Your task to perform on an android device: open sync settings in chrome Image 0: 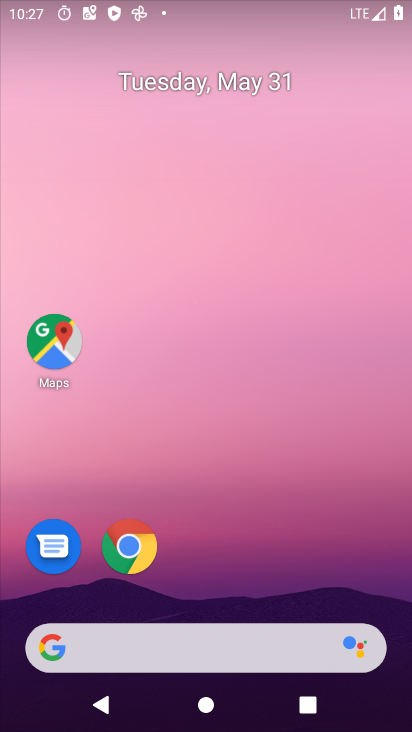
Step 0: drag from (287, 552) to (347, 105)
Your task to perform on an android device: open sync settings in chrome Image 1: 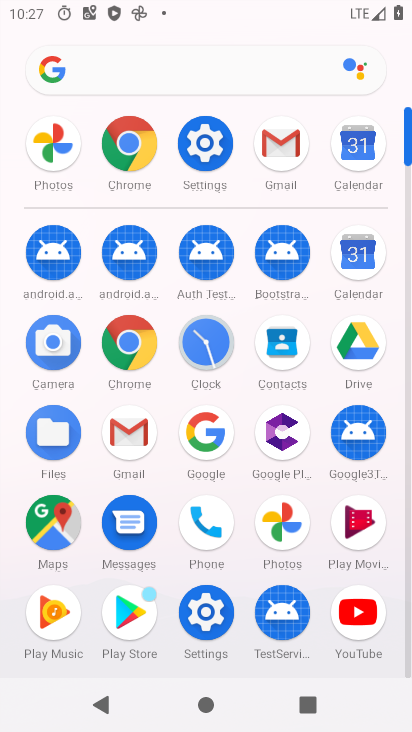
Step 1: click (128, 160)
Your task to perform on an android device: open sync settings in chrome Image 2: 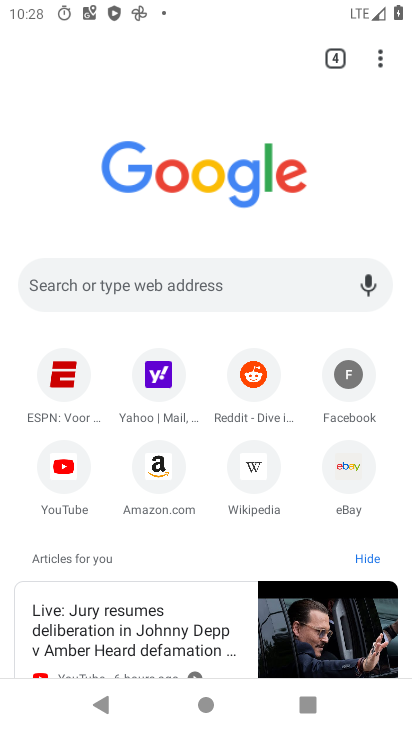
Step 2: click (383, 70)
Your task to perform on an android device: open sync settings in chrome Image 3: 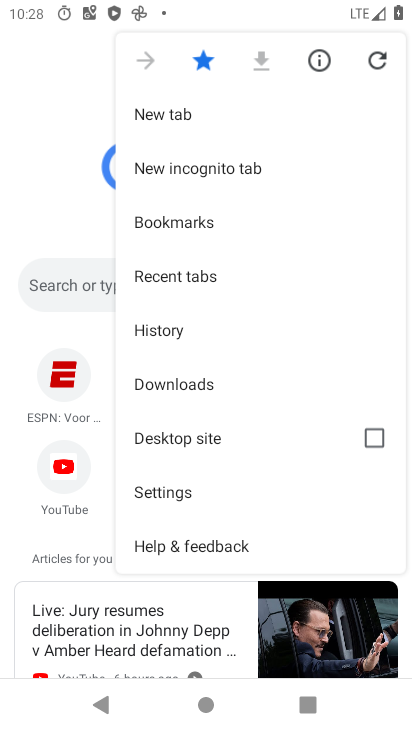
Step 3: click (225, 479)
Your task to perform on an android device: open sync settings in chrome Image 4: 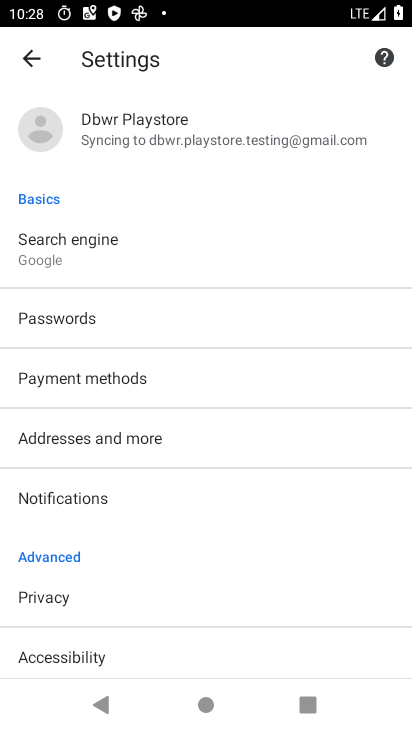
Step 4: drag from (199, 505) to (246, 148)
Your task to perform on an android device: open sync settings in chrome Image 5: 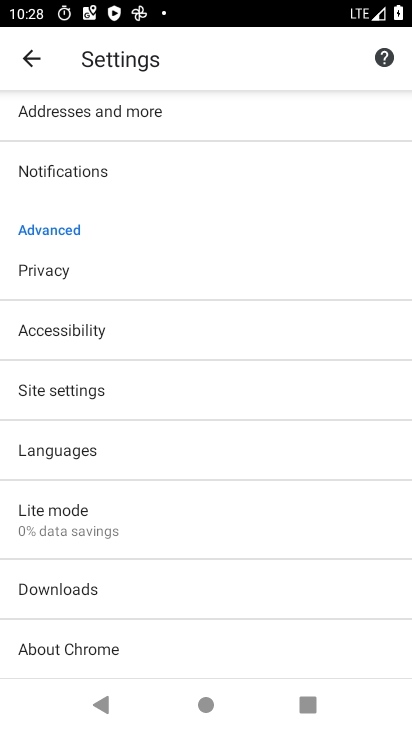
Step 5: click (155, 260)
Your task to perform on an android device: open sync settings in chrome Image 6: 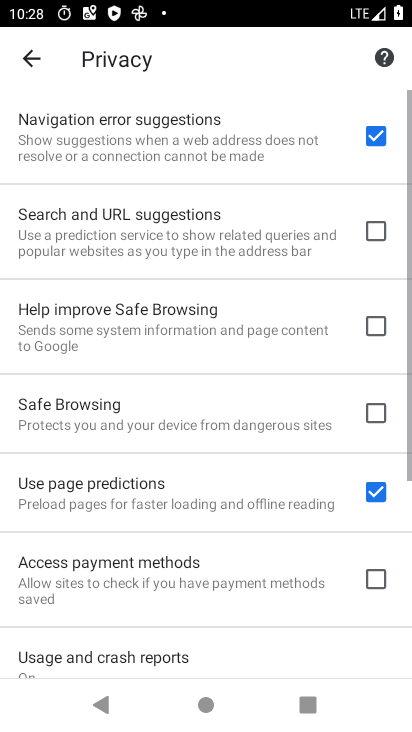
Step 6: drag from (122, 524) to (204, 115)
Your task to perform on an android device: open sync settings in chrome Image 7: 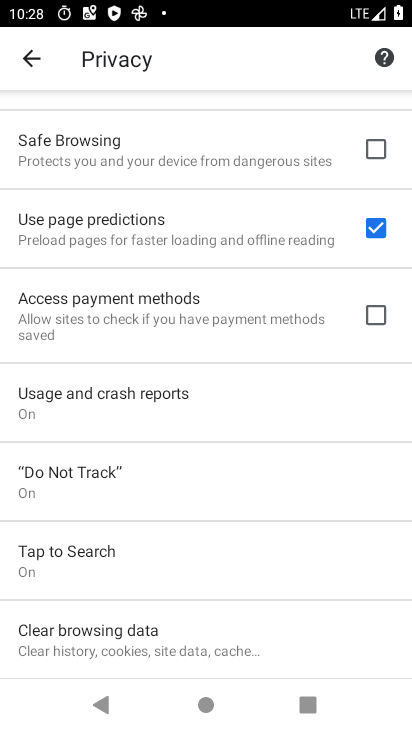
Step 7: drag from (138, 477) to (222, 167)
Your task to perform on an android device: open sync settings in chrome Image 8: 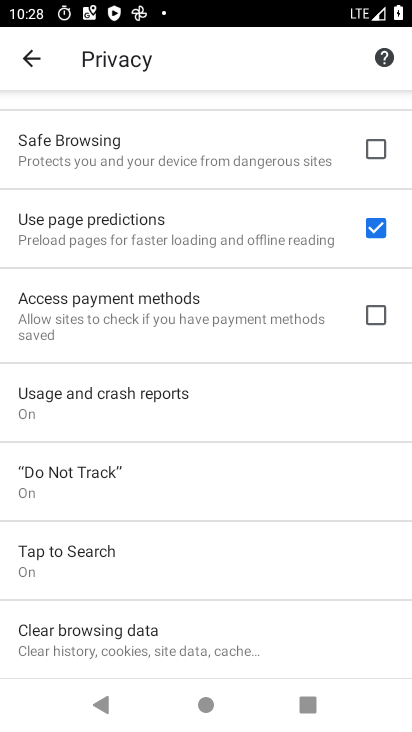
Step 8: press back button
Your task to perform on an android device: open sync settings in chrome Image 9: 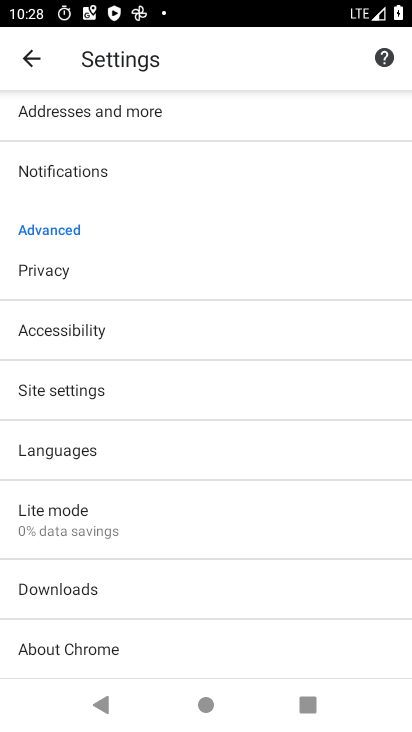
Step 9: click (226, 322)
Your task to perform on an android device: open sync settings in chrome Image 10: 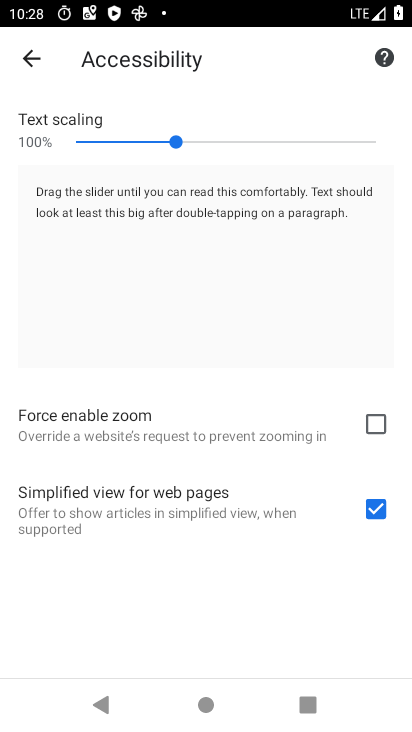
Step 10: press back button
Your task to perform on an android device: open sync settings in chrome Image 11: 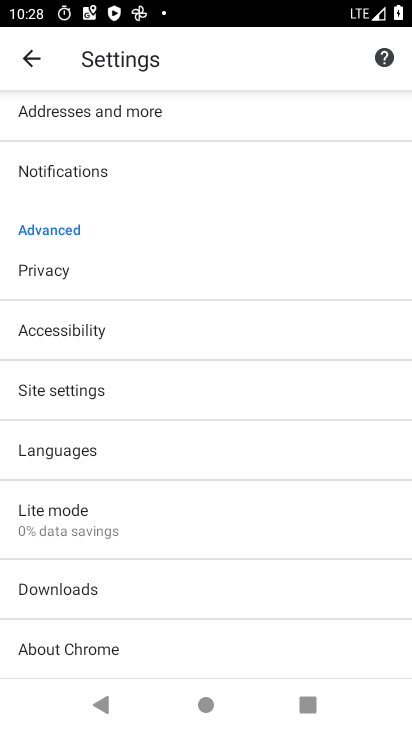
Step 11: click (192, 381)
Your task to perform on an android device: open sync settings in chrome Image 12: 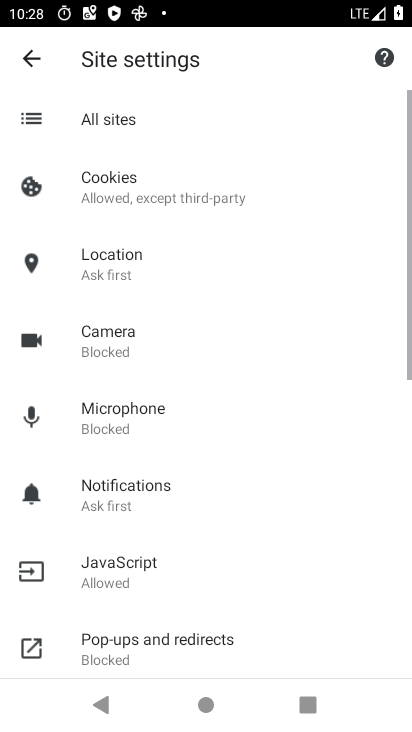
Step 12: task complete